Your task to perform on an android device: add a contact Image 0: 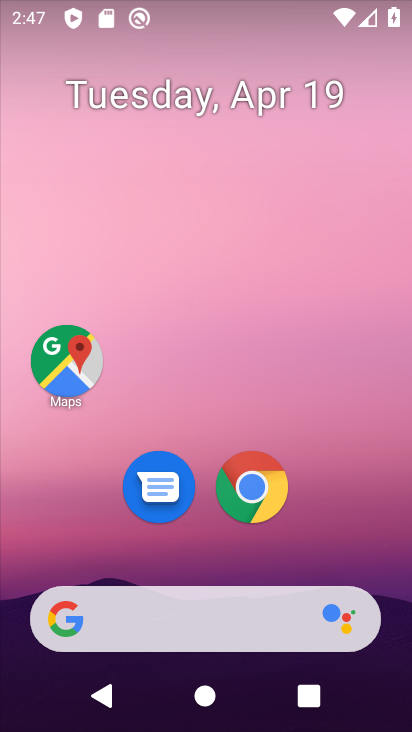
Step 0: drag from (200, 446) to (277, 9)
Your task to perform on an android device: add a contact Image 1: 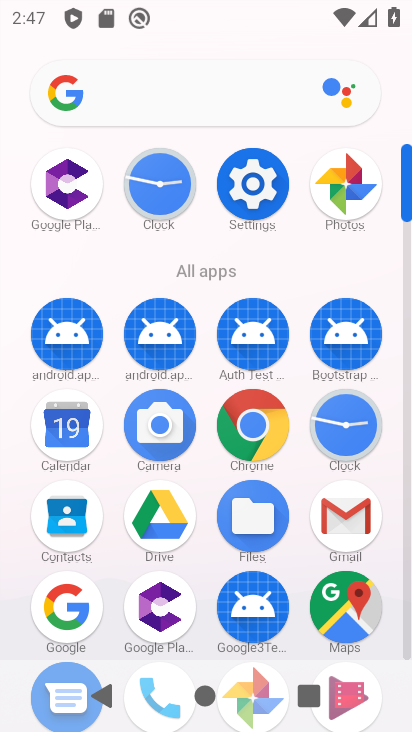
Step 1: click (64, 523)
Your task to perform on an android device: add a contact Image 2: 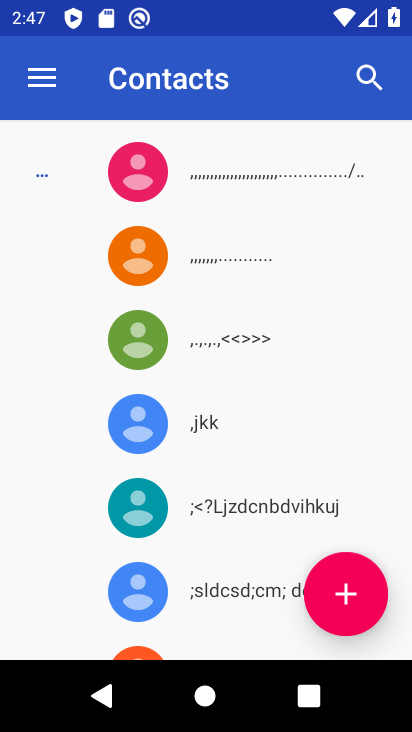
Step 2: click (350, 593)
Your task to perform on an android device: add a contact Image 3: 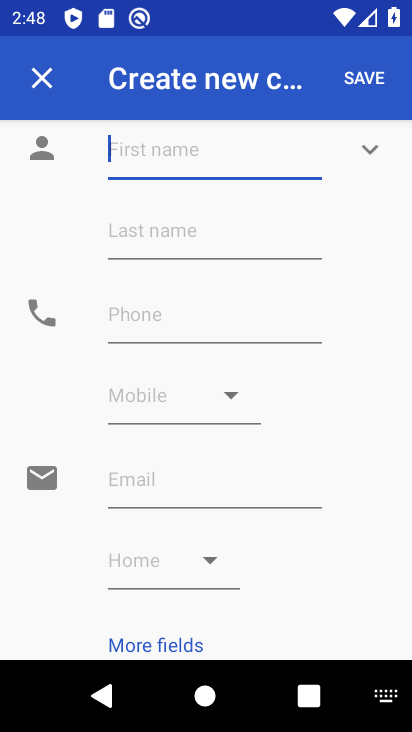
Step 3: click (151, 167)
Your task to perform on an android device: add a contact Image 4: 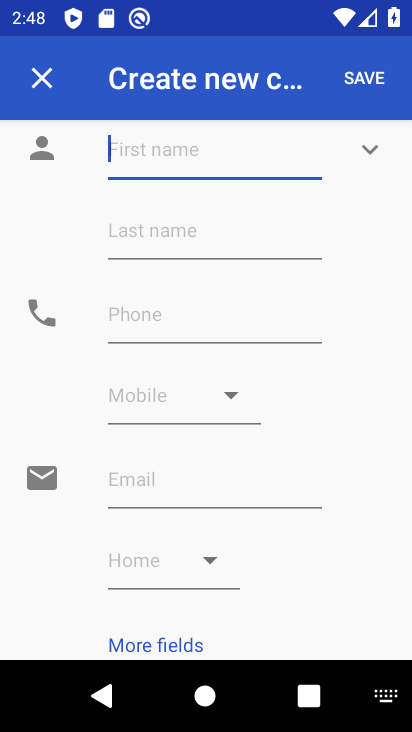
Step 4: type "fbfd"
Your task to perform on an android device: add a contact Image 5: 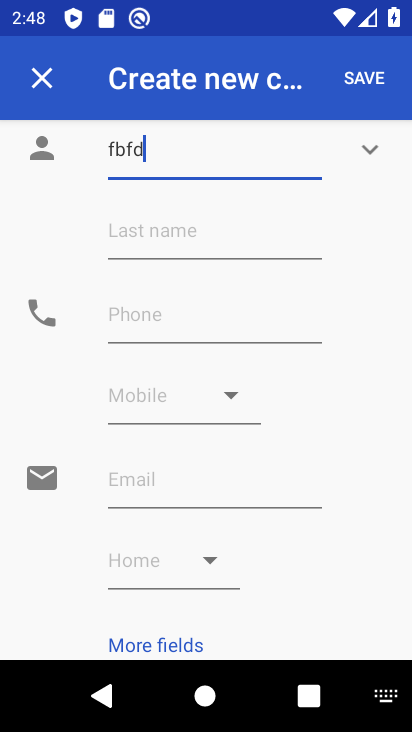
Step 5: click (131, 308)
Your task to perform on an android device: add a contact Image 6: 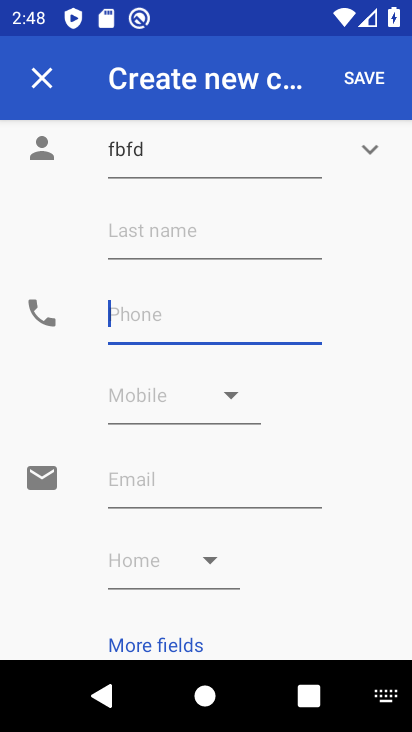
Step 6: type "656"
Your task to perform on an android device: add a contact Image 7: 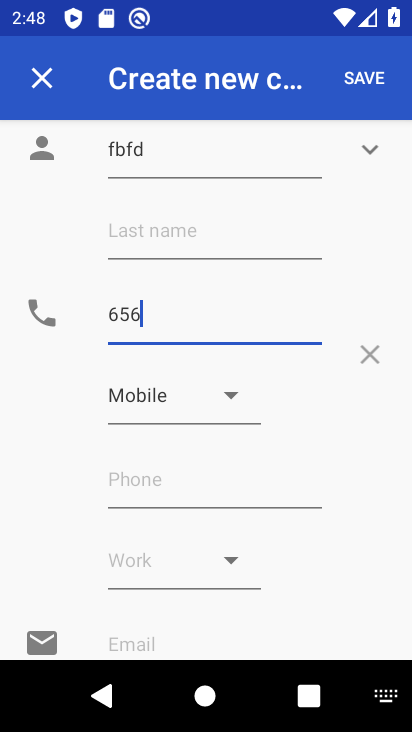
Step 7: click (358, 72)
Your task to perform on an android device: add a contact Image 8: 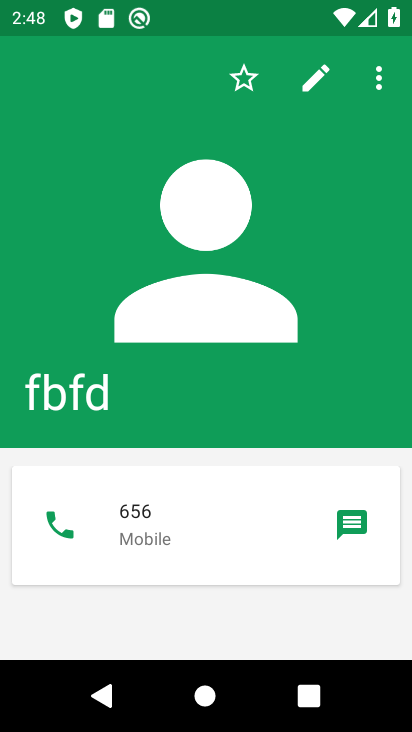
Step 8: task complete